Your task to perform on an android device: Go to accessibility settings Image 0: 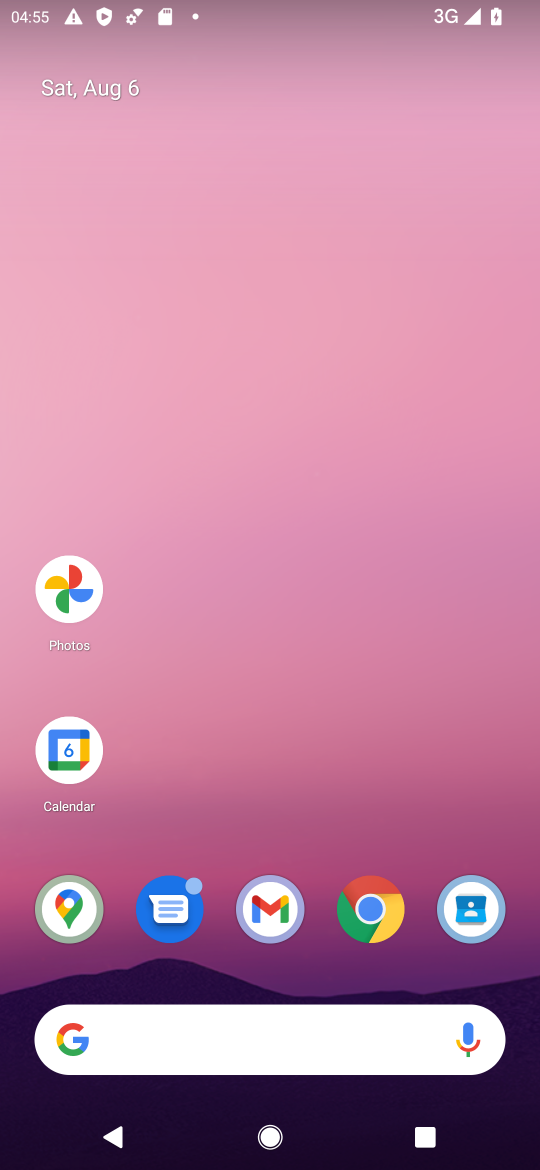
Step 0: drag from (308, 784) to (256, 261)
Your task to perform on an android device: Go to accessibility settings Image 1: 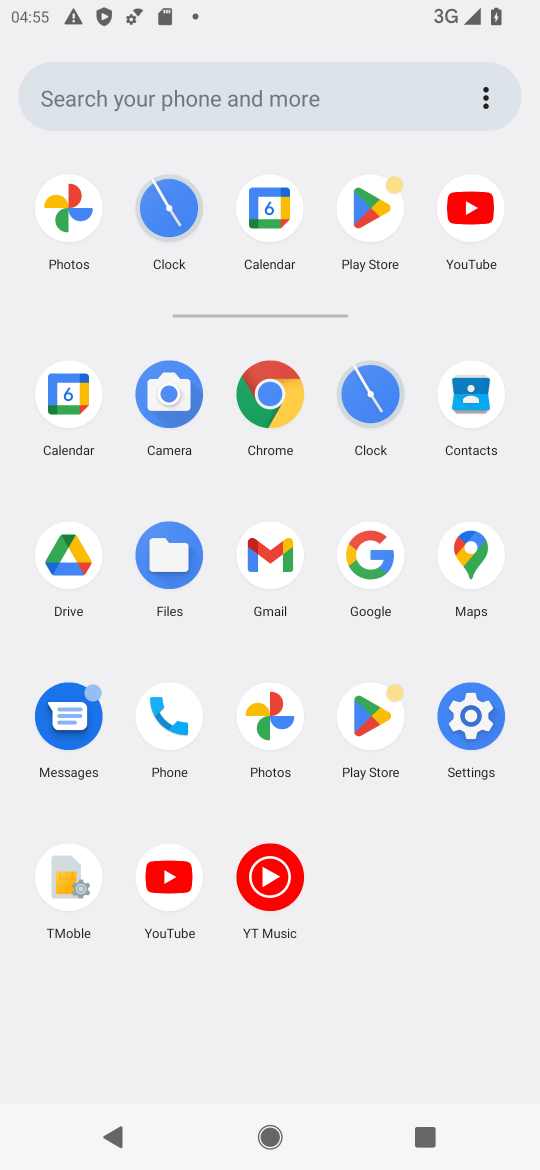
Step 1: click (475, 706)
Your task to perform on an android device: Go to accessibility settings Image 2: 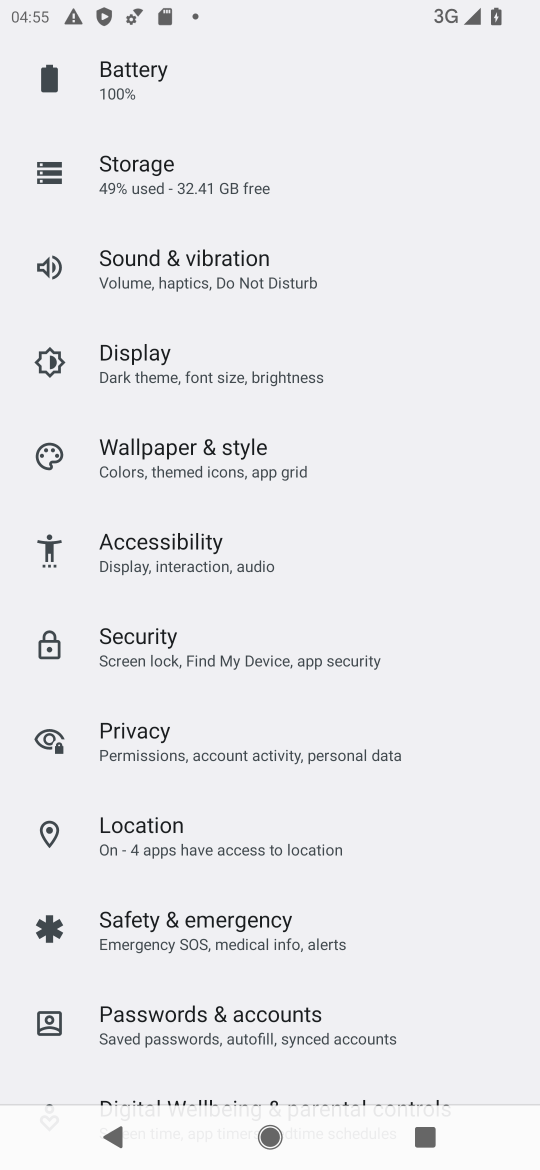
Step 2: click (188, 532)
Your task to perform on an android device: Go to accessibility settings Image 3: 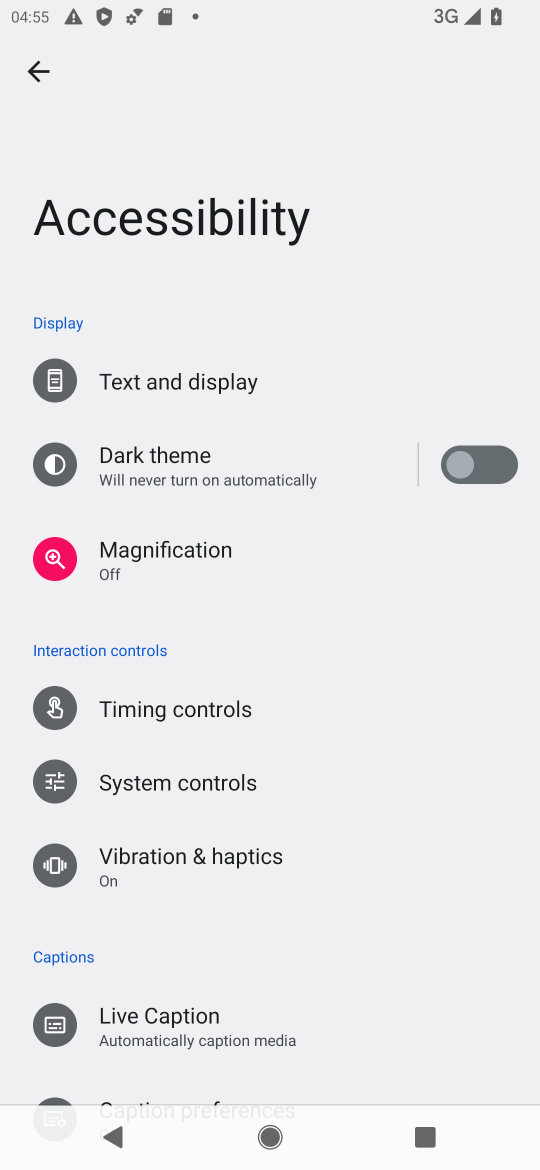
Step 3: task complete